Your task to perform on an android device: add a contact Image 0: 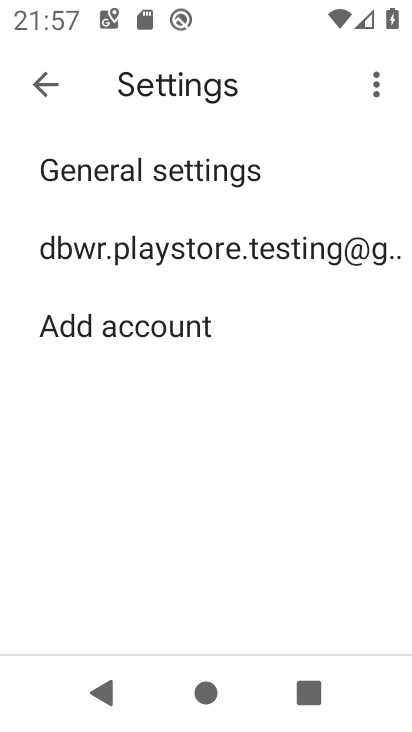
Step 0: press home button
Your task to perform on an android device: add a contact Image 1: 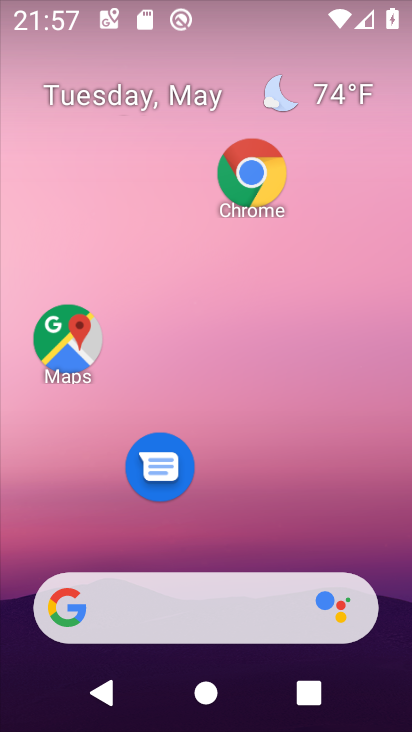
Step 1: drag from (283, 506) to (291, 135)
Your task to perform on an android device: add a contact Image 2: 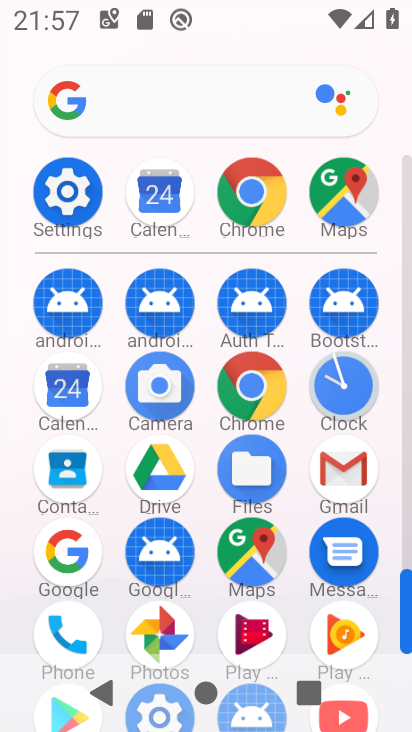
Step 2: drag from (190, 526) to (216, 266)
Your task to perform on an android device: add a contact Image 3: 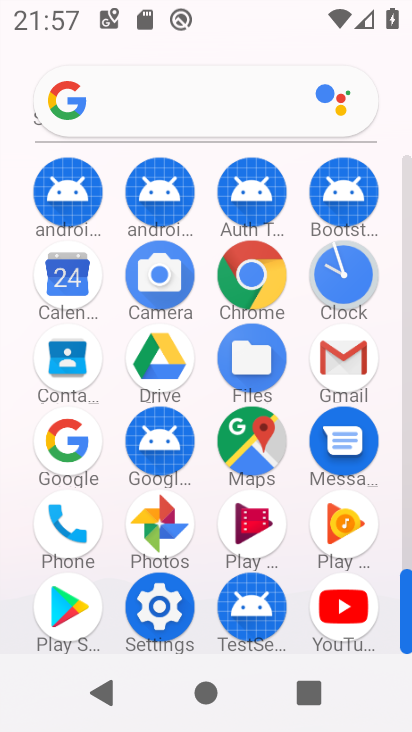
Step 3: drag from (286, 242) to (291, 494)
Your task to perform on an android device: add a contact Image 4: 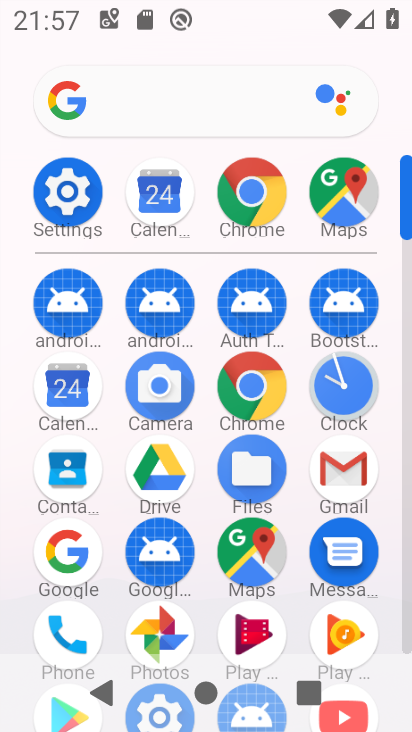
Step 4: click (72, 480)
Your task to perform on an android device: add a contact Image 5: 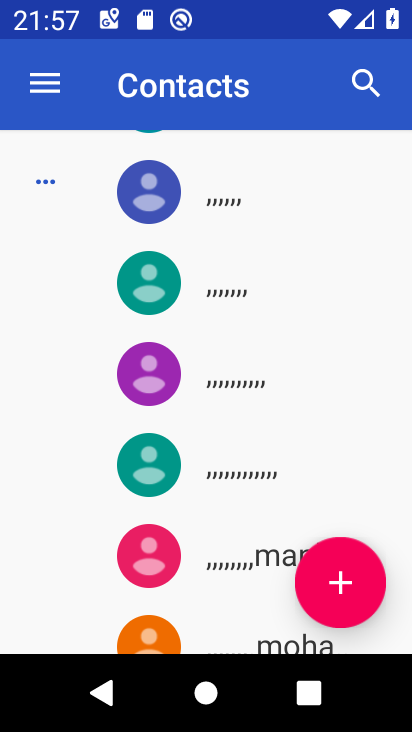
Step 5: click (331, 587)
Your task to perform on an android device: add a contact Image 6: 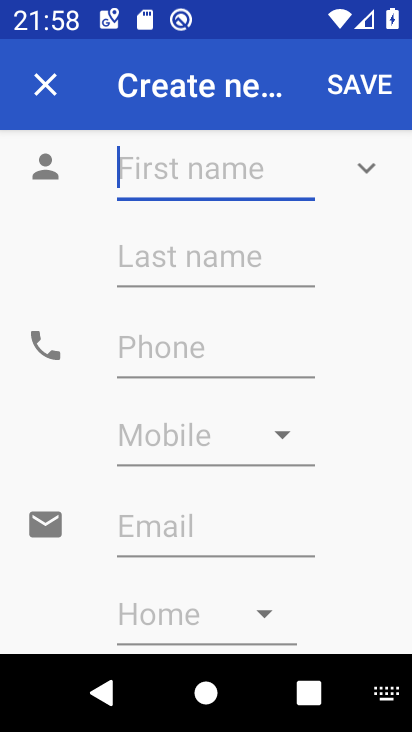
Step 6: type "soincn"
Your task to perform on an android device: add a contact Image 7: 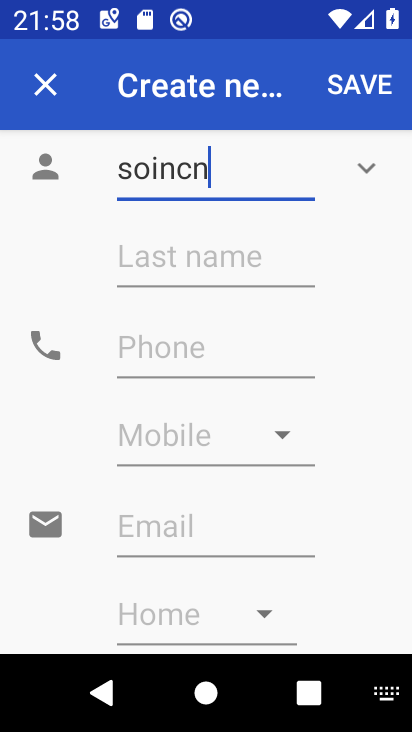
Step 7: click (217, 360)
Your task to perform on an android device: add a contact Image 8: 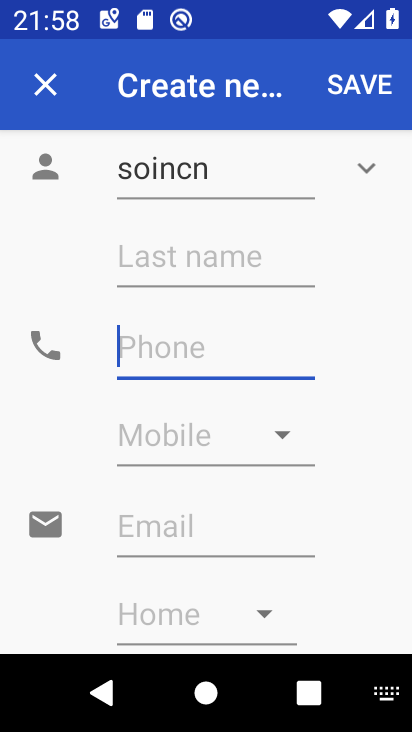
Step 8: type "02938403"
Your task to perform on an android device: add a contact Image 9: 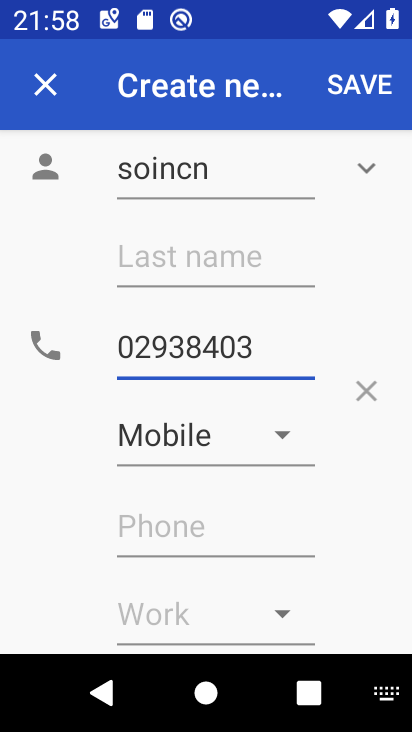
Step 9: click (379, 83)
Your task to perform on an android device: add a contact Image 10: 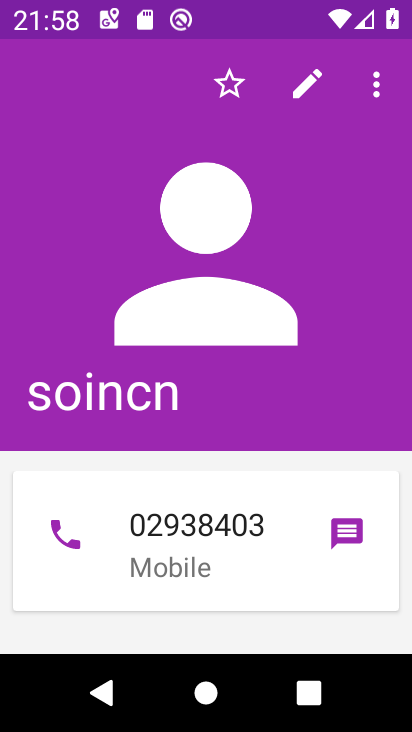
Step 10: task complete